Your task to perform on an android device: check data usage Image 0: 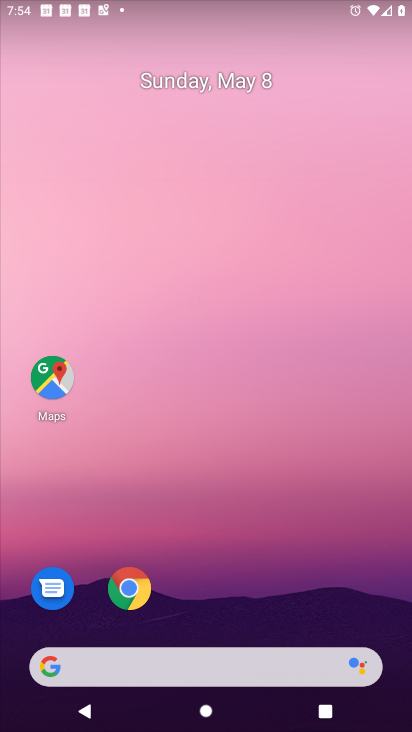
Step 0: press home button
Your task to perform on an android device: check data usage Image 1: 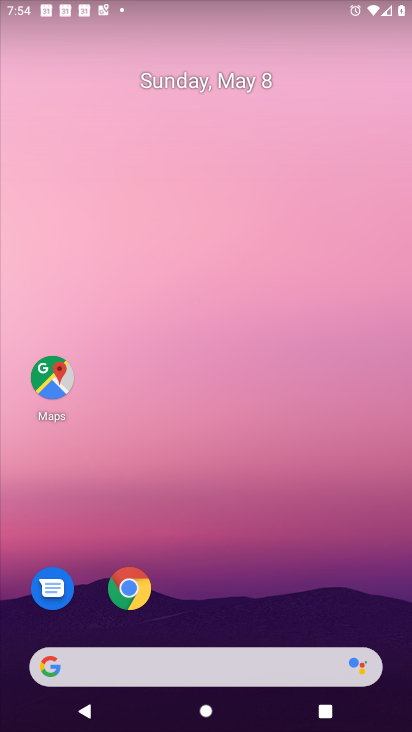
Step 1: drag from (177, 656) to (401, 0)
Your task to perform on an android device: check data usage Image 2: 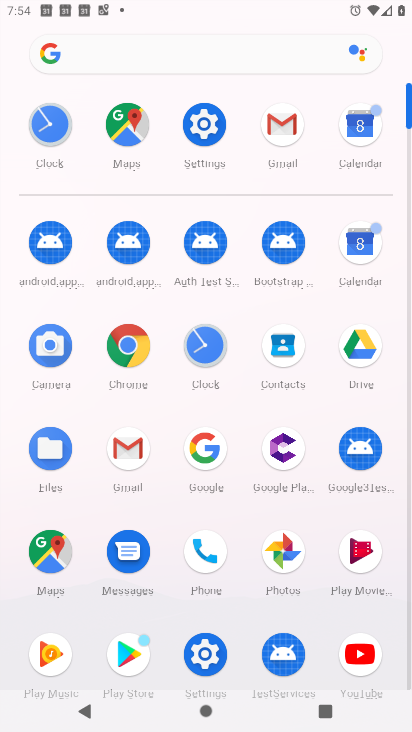
Step 2: click (202, 121)
Your task to perform on an android device: check data usage Image 3: 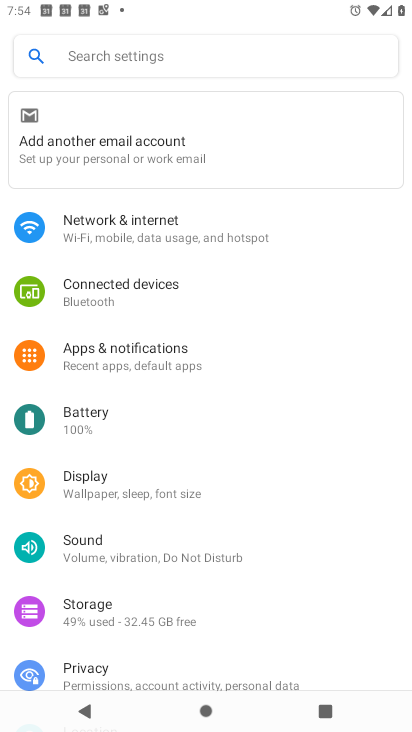
Step 3: click (167, 226)
Your task to perform on an android device: check data usage Image 4: 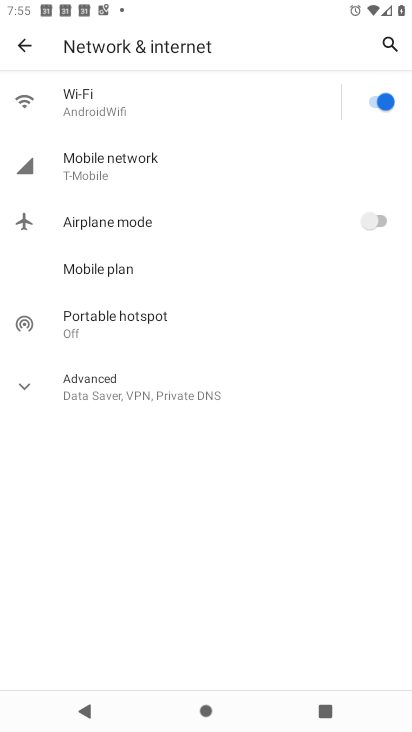
Step 4: click (126, 164)
Your task to perform on an android device: check data usage Image 5: 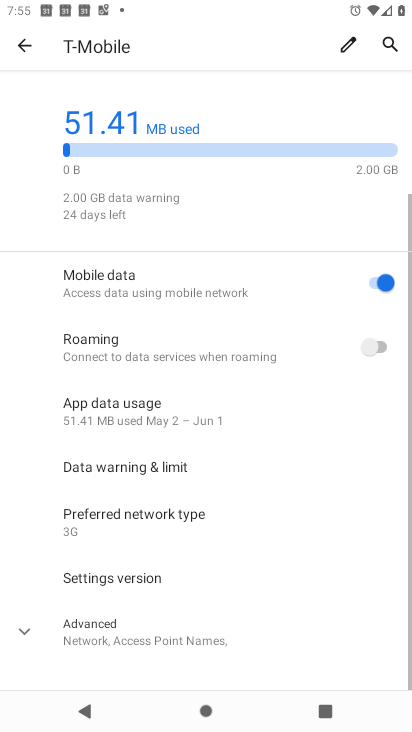
Step 5: drag from (152, 587) to (294, 266)
Your task to perform on an android device: check data usage Image 6: 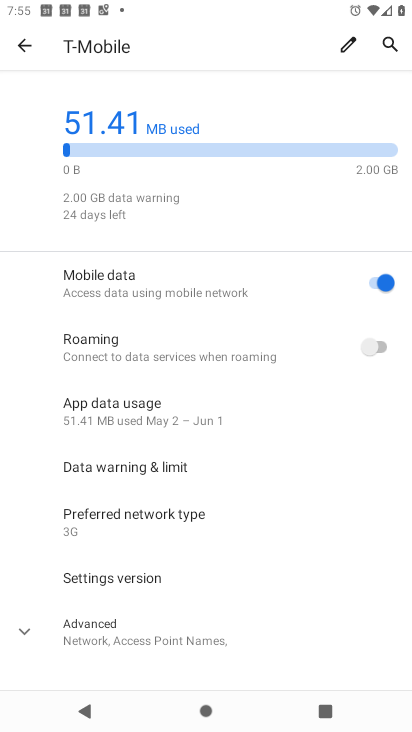
Step 6: click (96, 626)
Your task to perform on an android device: check data usage Image 7: 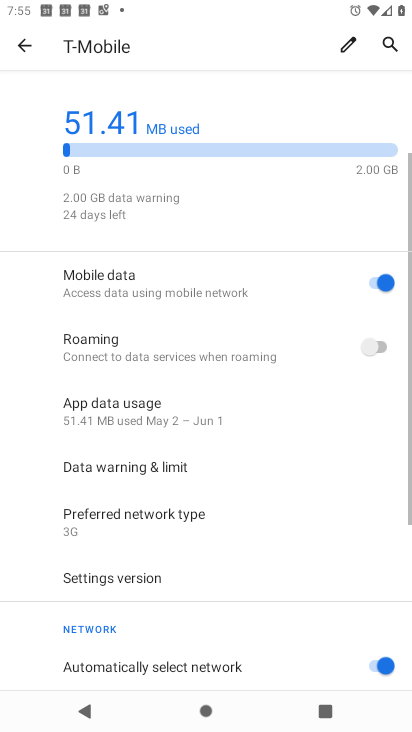
Step 7: task complete